Your task to perform on an android device: Open Google Image 0: 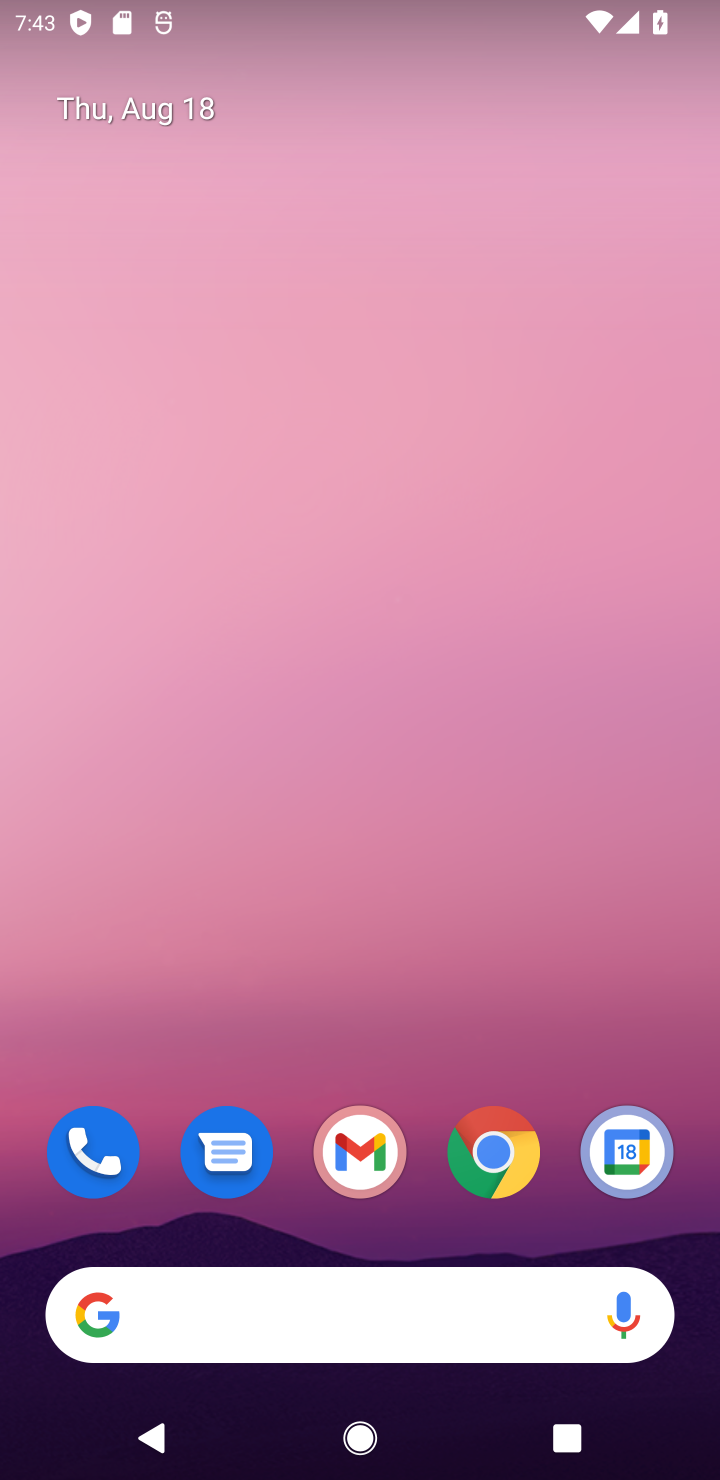
Step 0: press home button
Your task to perform on an android device: Open Google Image 1: 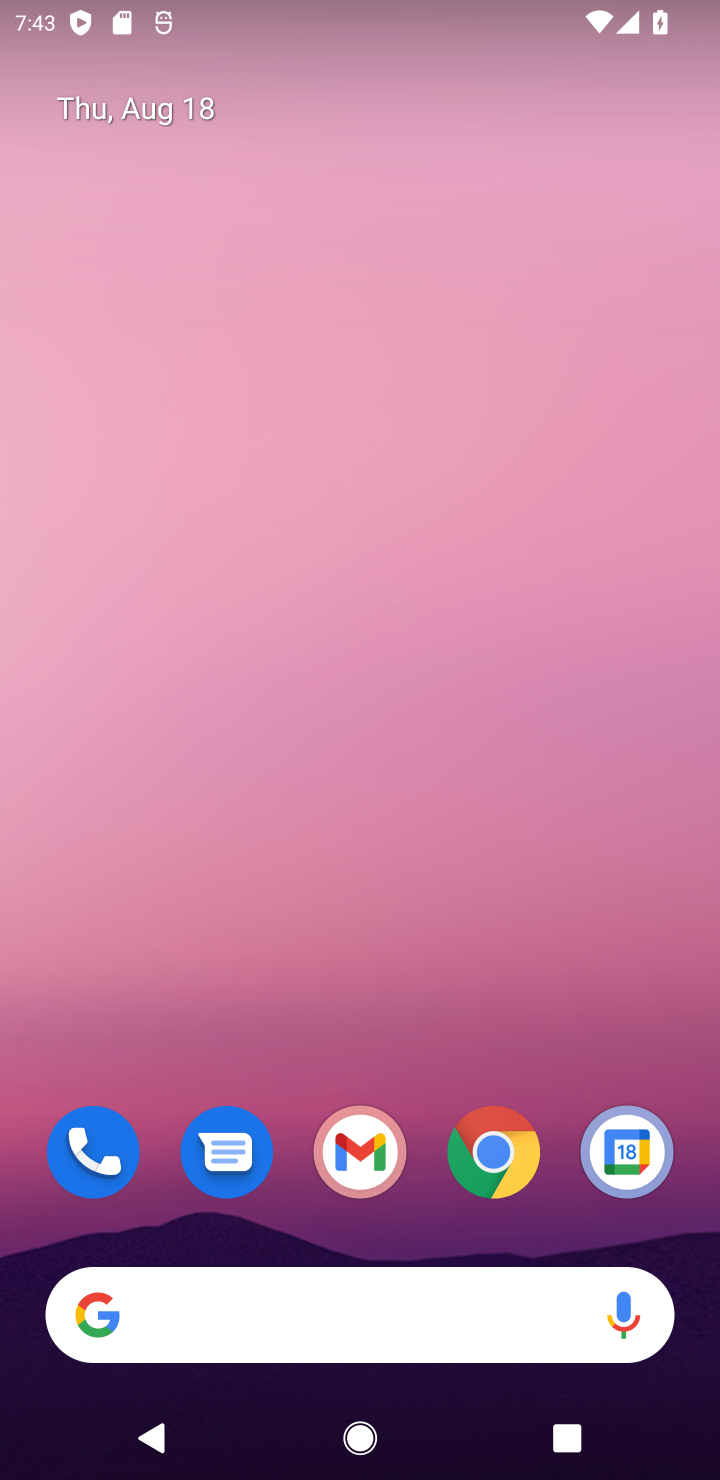
Step 1: drag from (432, 1207) to (396, 0)
Your task to perform on an android device: Open Google Image 2: 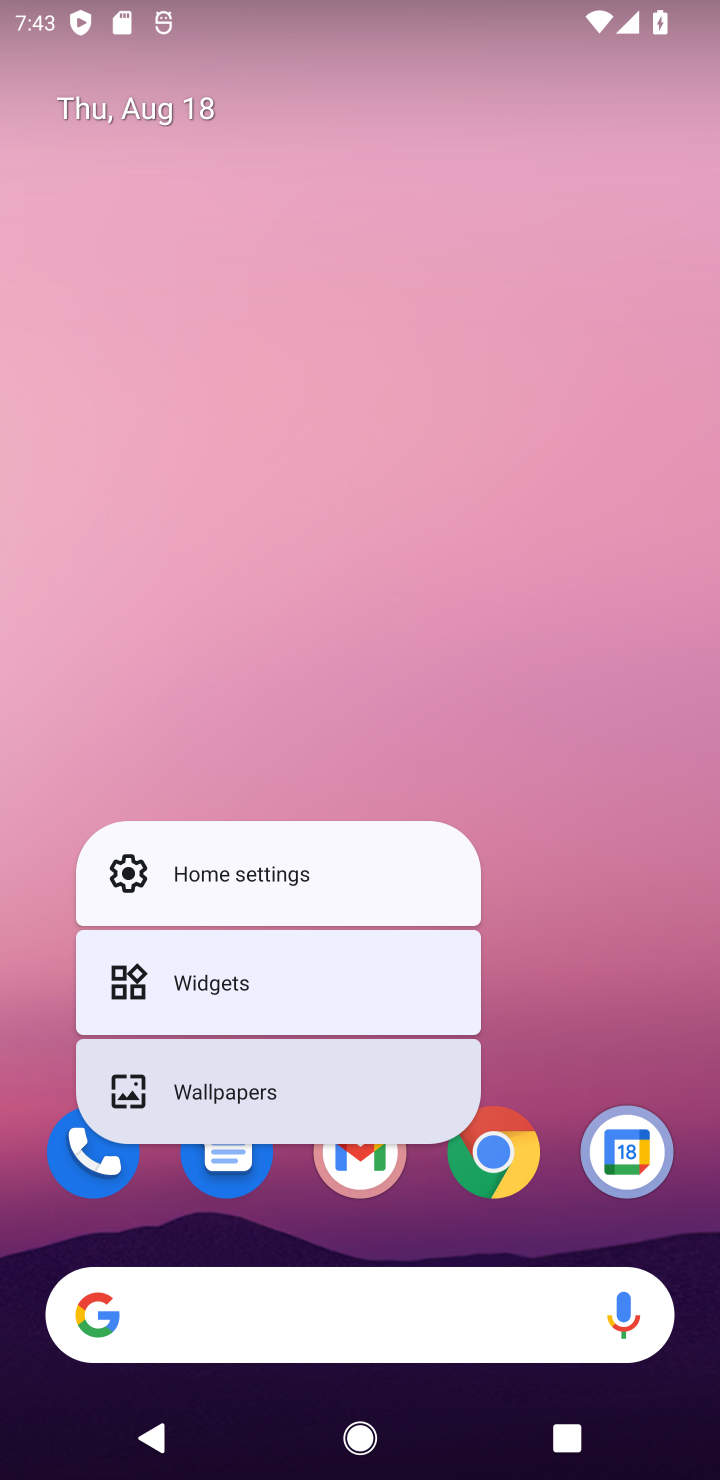
Step 2: click (555, 1215)
Your task to perform on an android device: Open Google Image 3: 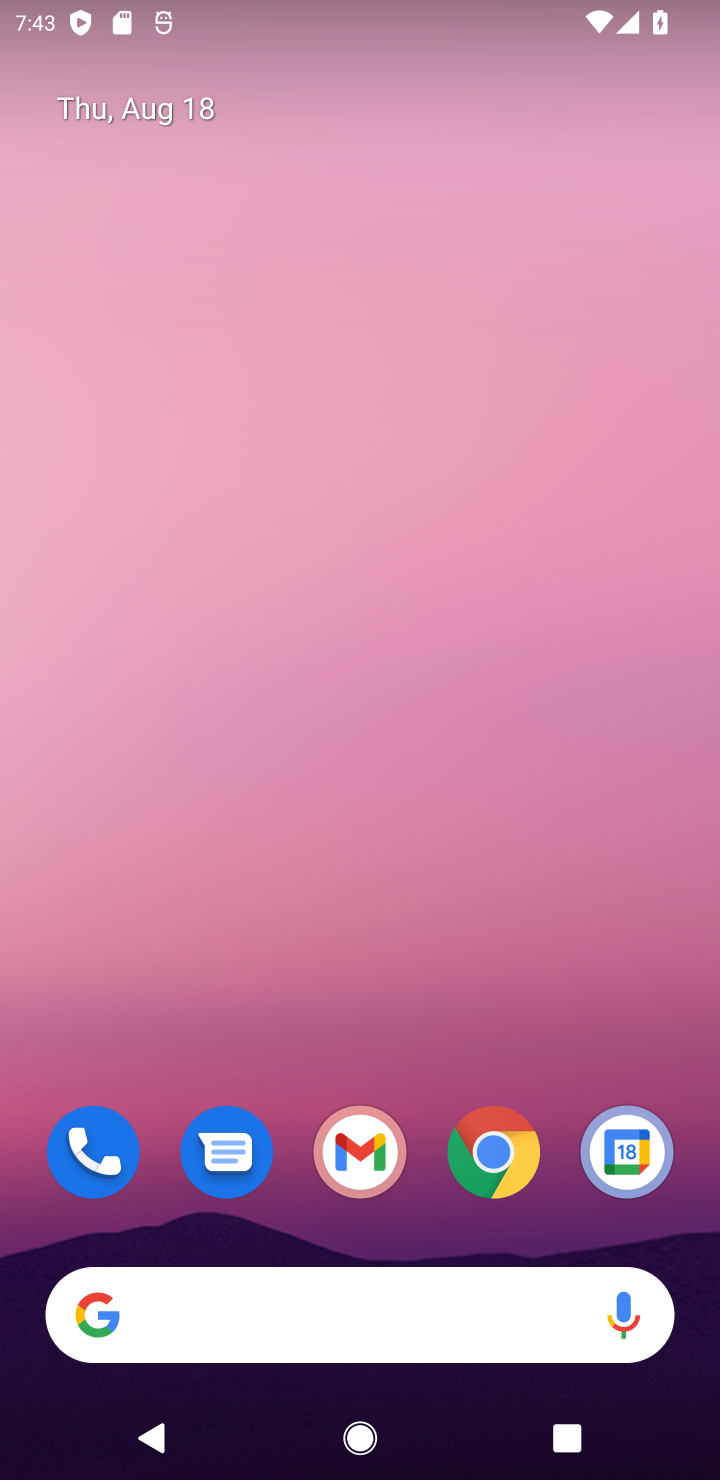
Step 3: drag from (538, 1193) to (513, 38)
Your task to perform on an android device: Open Google Image 4: 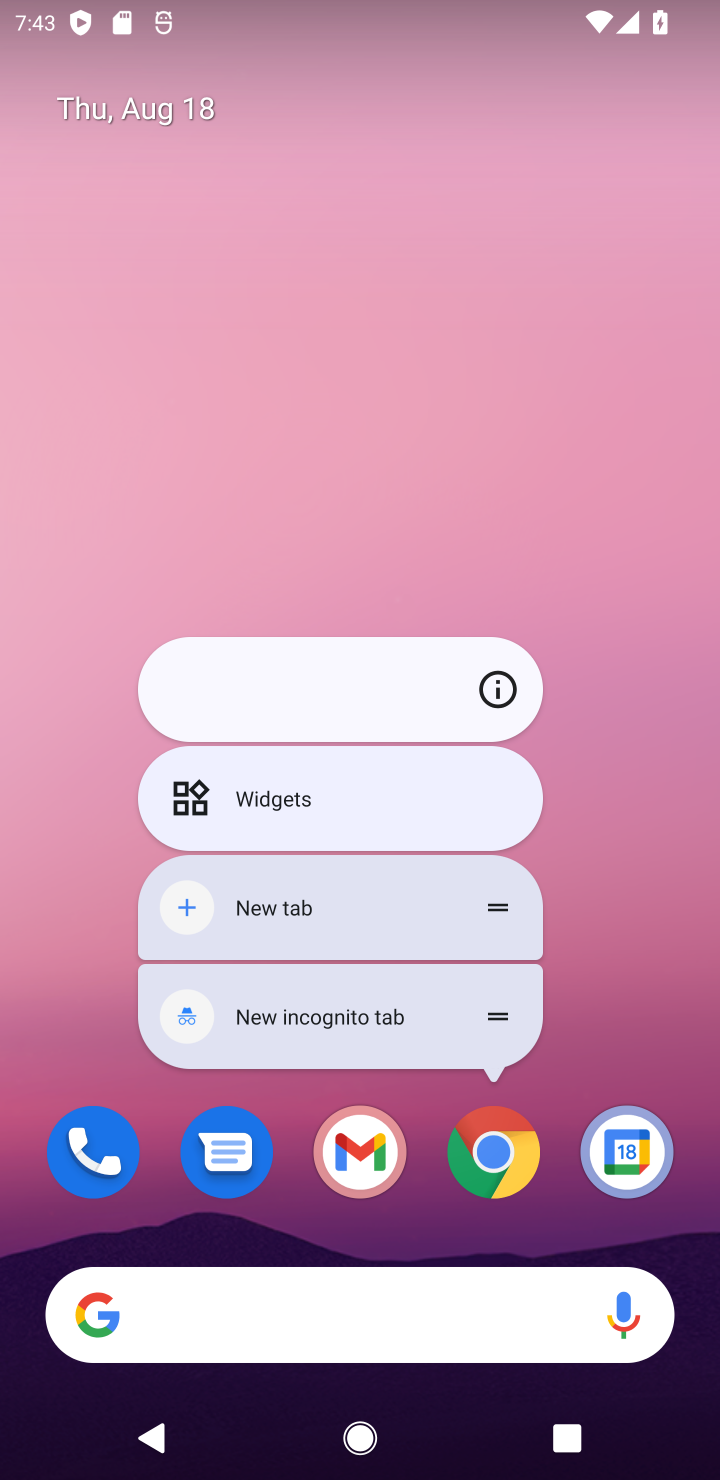
Step 4: drag from (569, 1184) to (562, 27)
Your task to perform on an android device: Open Google Image 5: 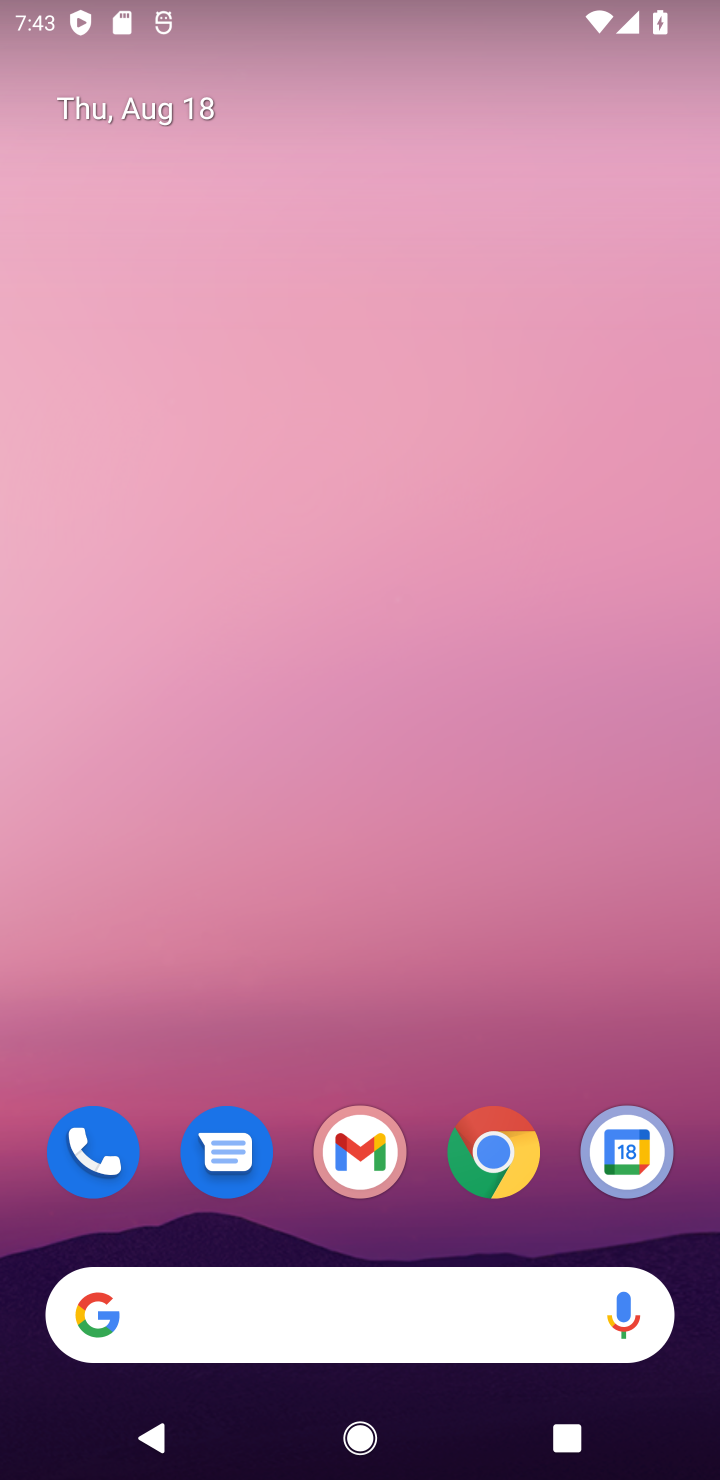
Step 5: drag from (417, 1218) to (494, 5)
Your task to perform on an android device: Open Google Image 6: 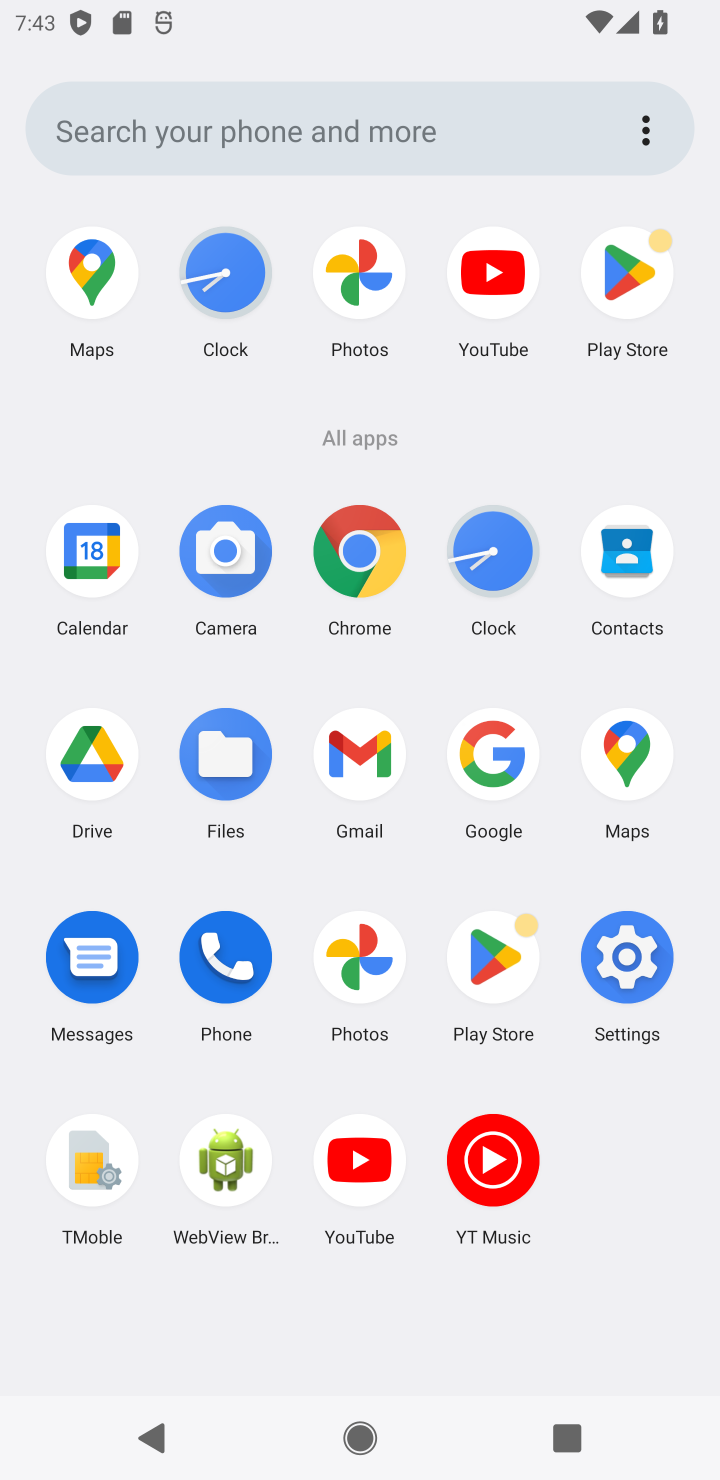
Step 6: click (497, 767)
Your task to perform on an android device: Open Google Image 7: 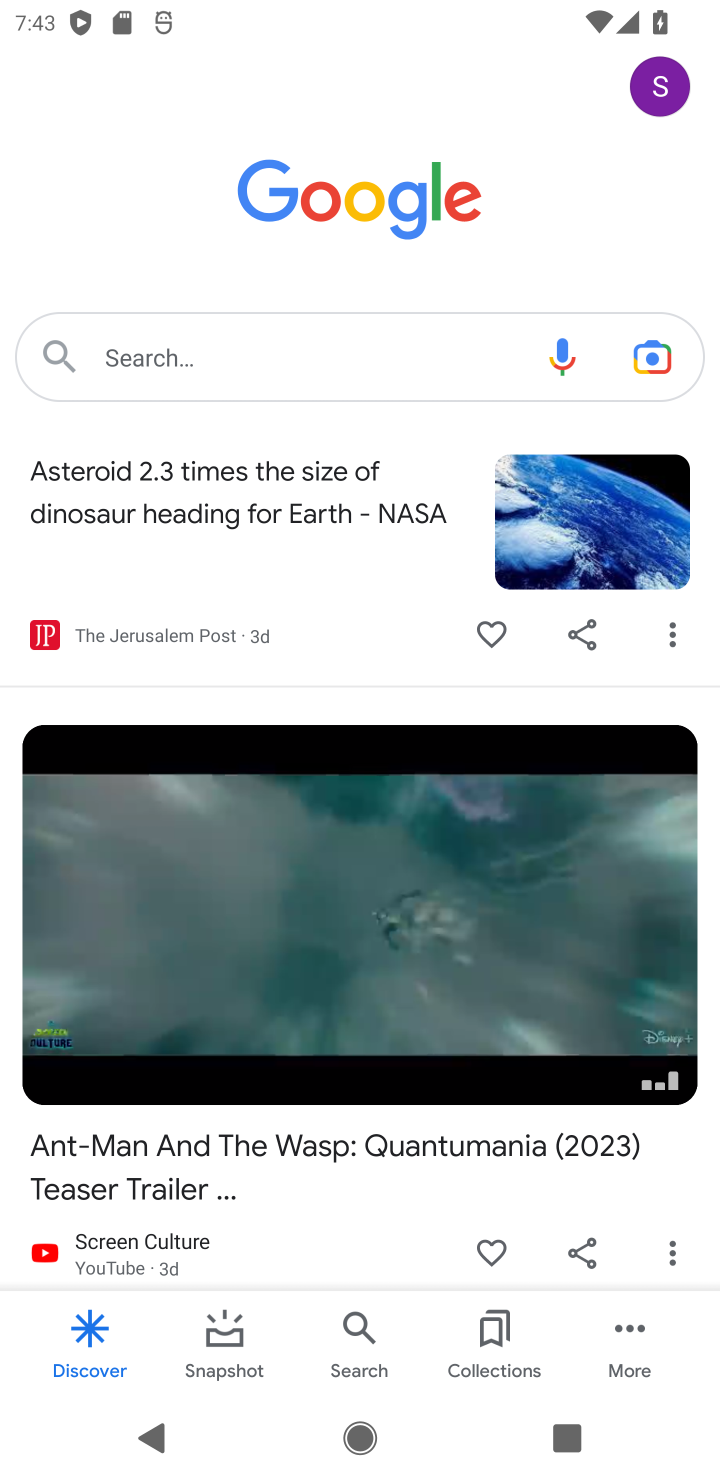
Step 7: task complete